Your task to perform on an android device: turn off wifi Image 0: 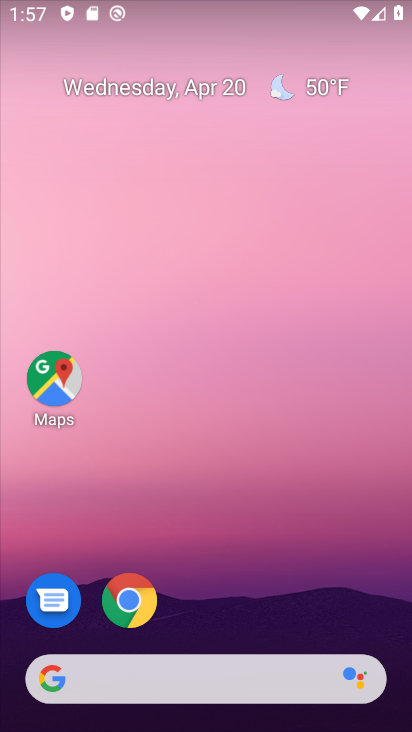
Step 0: drag from (212, 614) to (241, 137)
Your task to perform on an android device: turn off wifi Image 1: 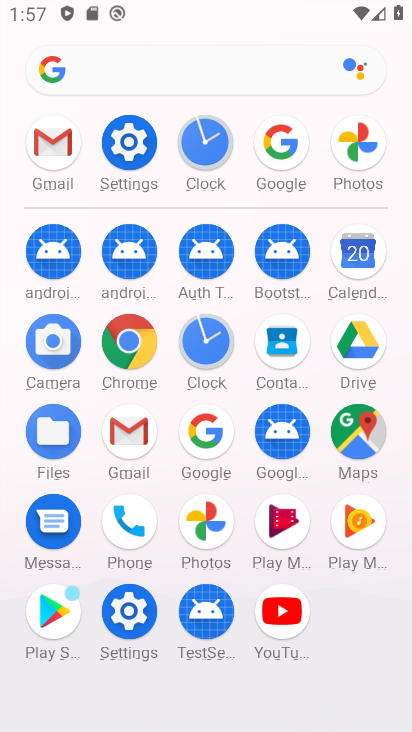
Step 1: click (138, 143)
Your task to perform on an android device: turn off wifi Image 2: 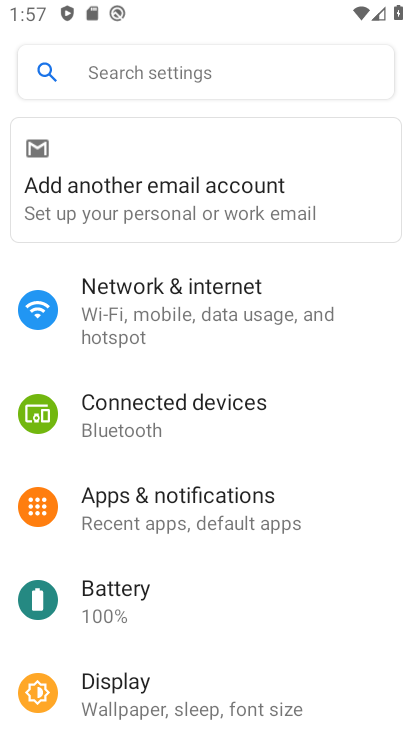
Step 2: click (163, 311)
Your task to perform on an android device: turn off wifi Image 3: 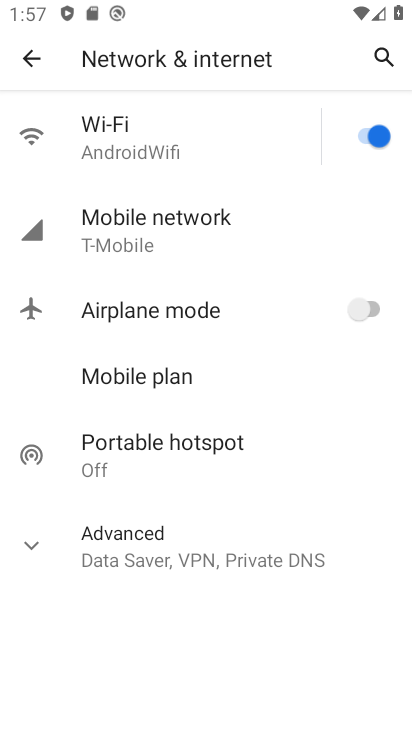
Step 3: click (141, 150)
Your task to perform on an android device: turn off wifi Image 4: 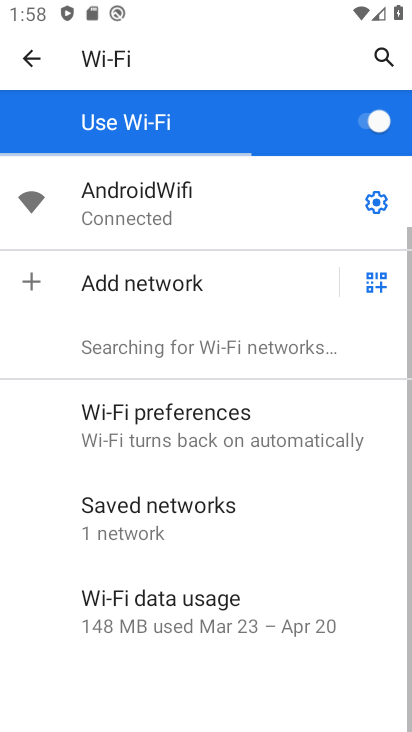
Step 4: click (368, 121)
Your task to perform on an android device: turn off wifi Image 5: 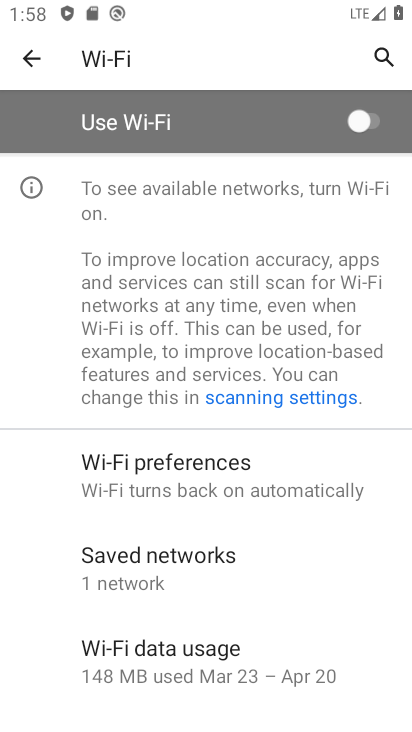
Step 5: task complete